Your task to perform on an android device: Open Youtube and go to the subscriptions tab Image 0: 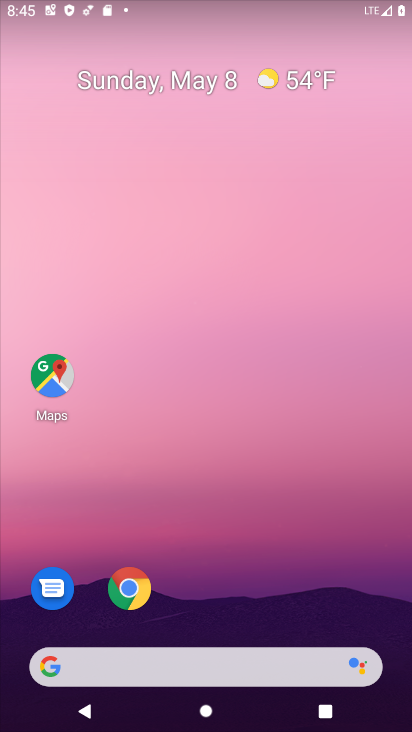
Step 0: drag from (81, 457) to (308, 149)
Your task to perform on an android device: Open Youtube and go to the subscriptions tab Image 1: 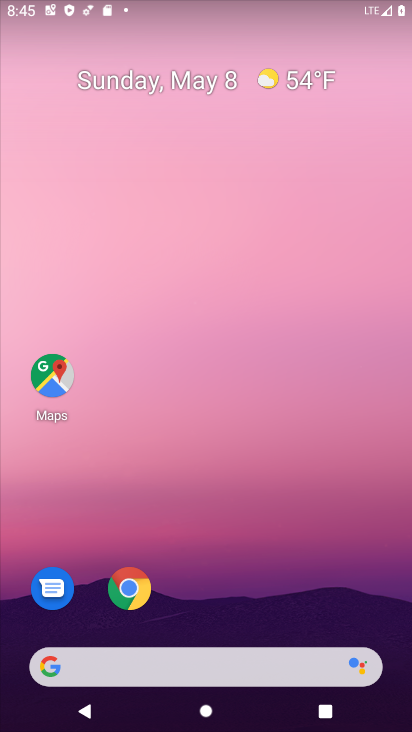
Step 1: drag from (25, 609) to (352, 123)
Your task to perform on an android device: Open Youtube and go to the subscriptions tab Image 2: 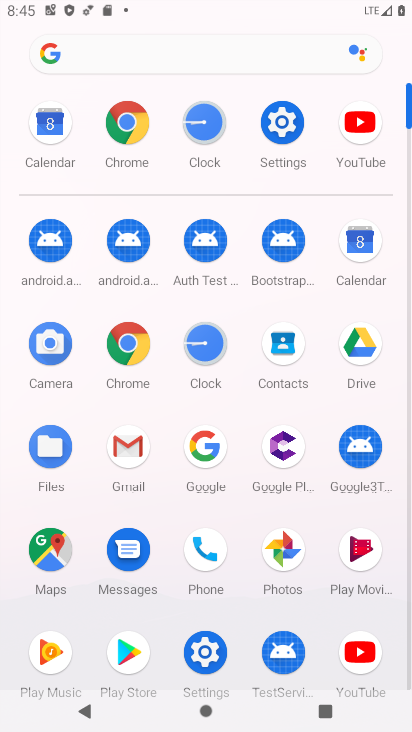
Step 2: click (367, 116)
Your task to perform on an android device: Open Youtube and go to the subscriptions tab Image 3: 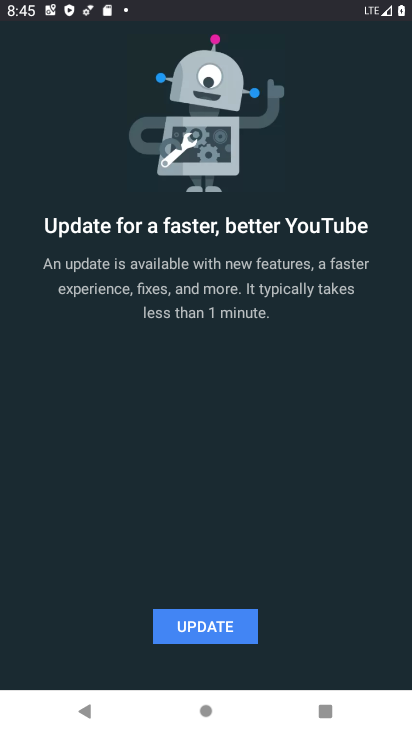
Step 3: click (182, 630)
Your task to perform on an android device: Open Youtube and go to the subscriptions tab Image 4: 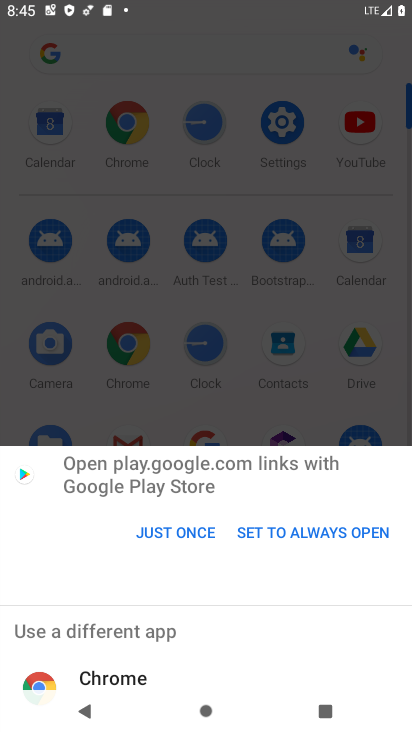
Step 4: drag from (165, 648) to (303, 239)
Your task to perform on an android device: Open Youtube and go to the subscriptions tab Image 5: 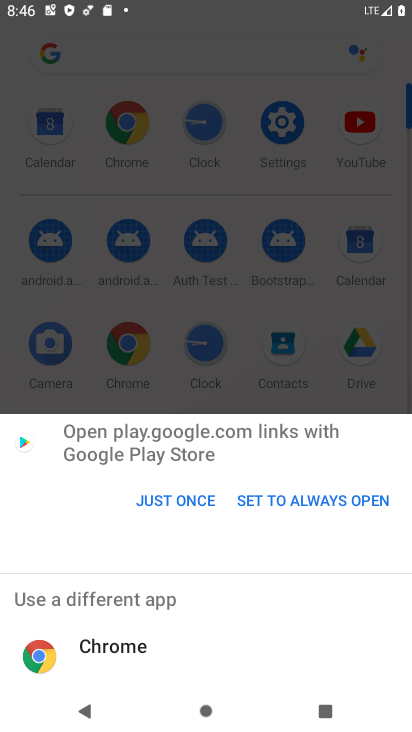
Step 5: drag from (187, 645) to (309, 272)
Your task to perform on an android device: Open Youtube and go to the subscriptions tab Image 6: 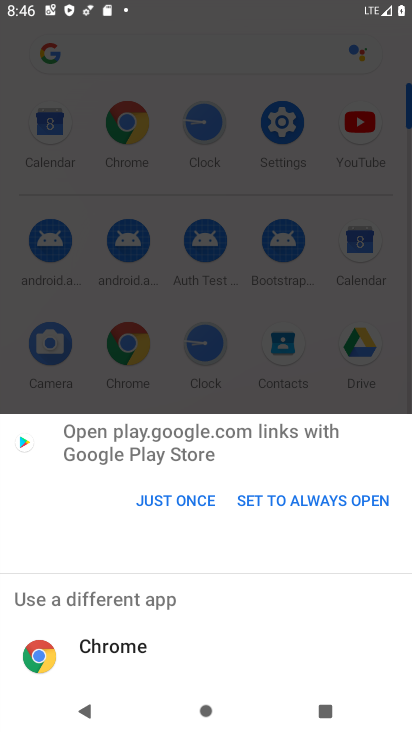
Step 6: drag from (135, 651) to (221, 304)
Your task to perform on an android device: Open Youtube and go to the subscriptions tab Image 7: 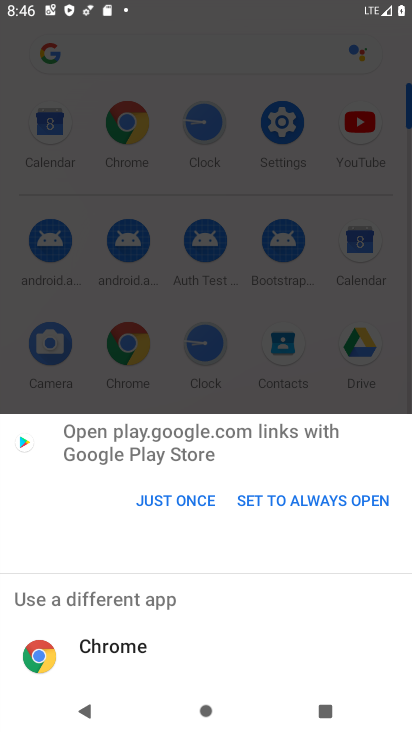
Step 7: click (89, 432)
Your task to perform on an android device: Open Youtube and go to the subscriptions tab Image 8: 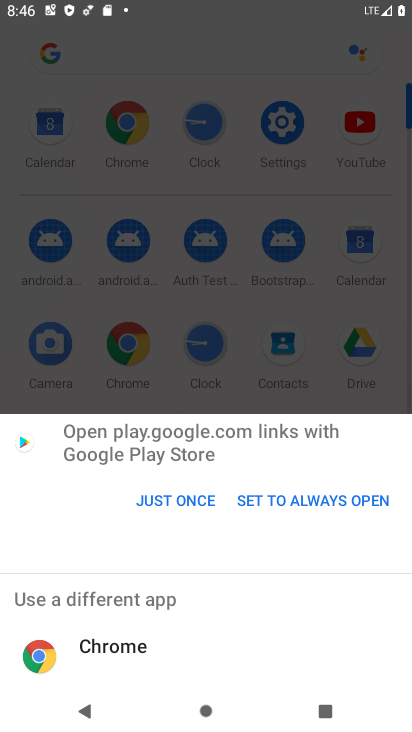
Step 8: click (251, 499)
Your task to perform on an android device: Open Youtube and go to the subscriptions tab Image 9: 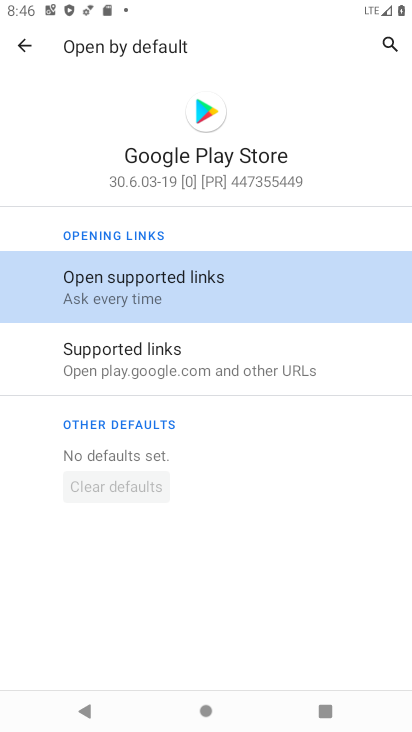
Step 9: click (166, 281)
Your task to perform on an android device: Open Youtube and go to the subscriptions tab Image 10: 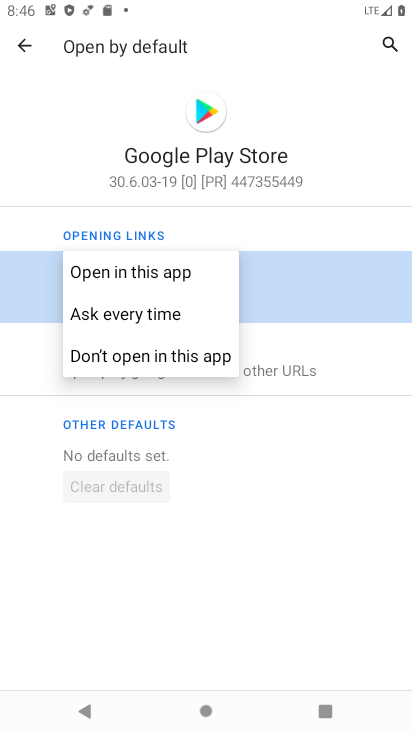
Step 10: click (166, 271)
Your task to perform on an android device: Open Youtube and go to the subscriptions tab Image 11: 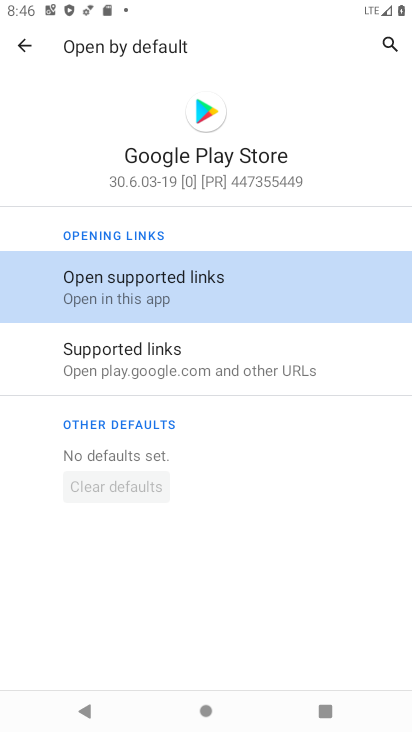
Step 11: click (224, 262)
Your task to perform on an android device: Open Youtube and go to the subscriptions tab Image 12: 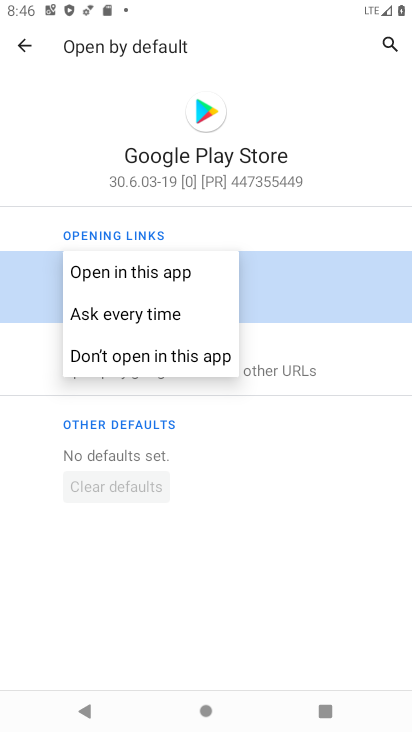
Step 12: task complete